Your task to perform on an android device: Do I have any events this weekend? Image 0: 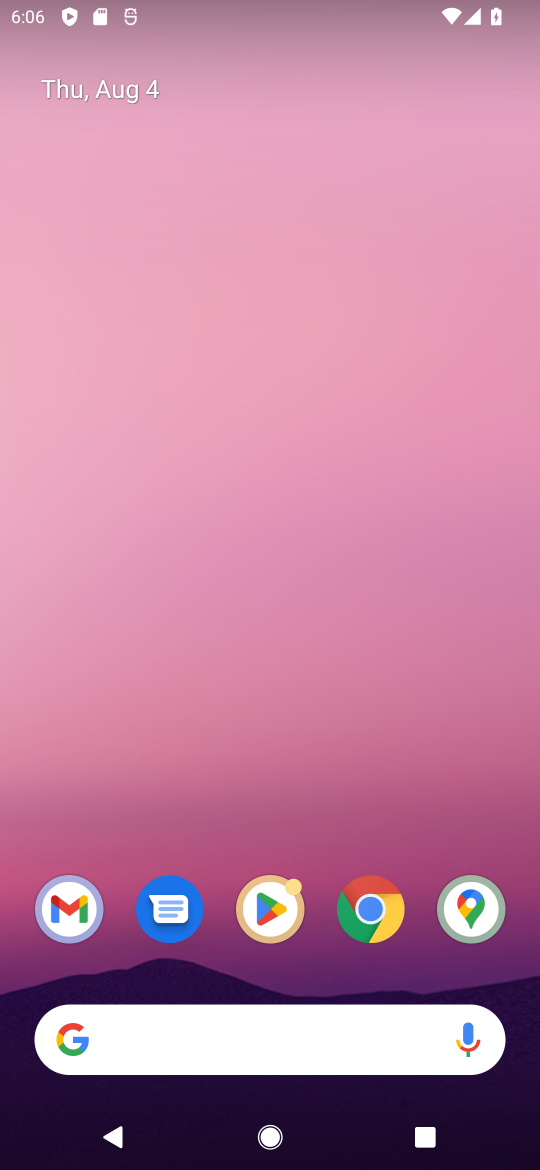
Step 0: drag from (338, 959) to (476, 23)
Your task to perform on an android device: Do I have any events this weekend? Image 1: 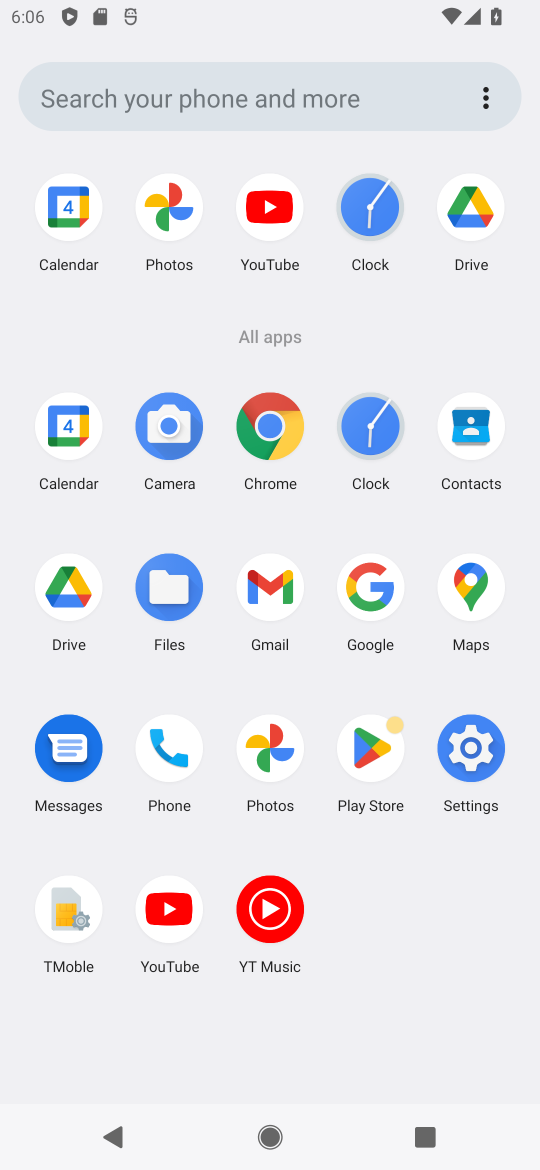
Step 1: click (74, 454)
Your task to perform on an android device: Do I have any events this weekend? Image 2: 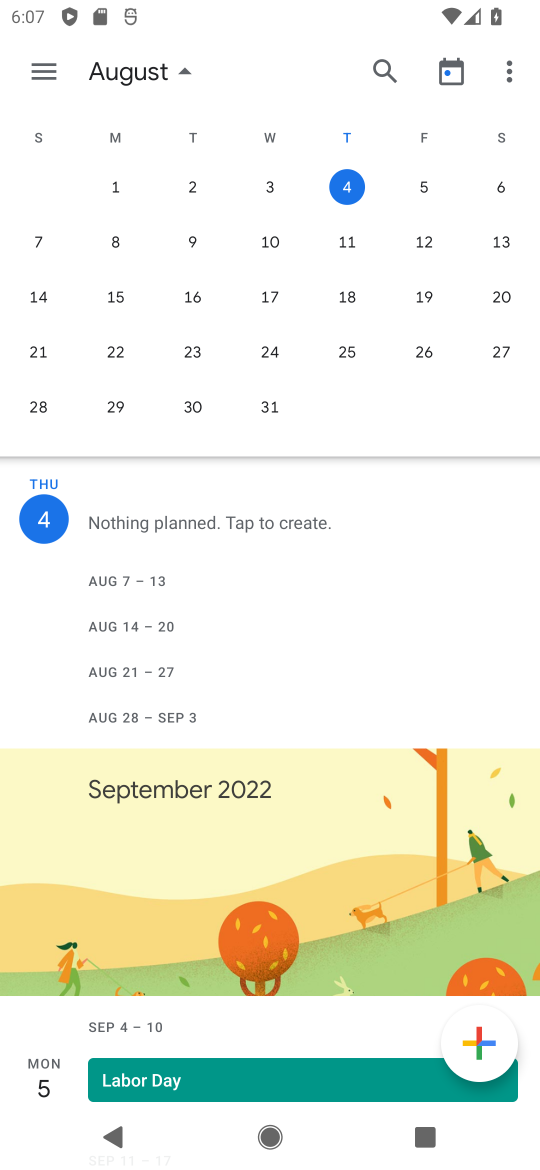
Step 2: task complete